Your task to perform on an android device: Open Yahoo.com Image 0: 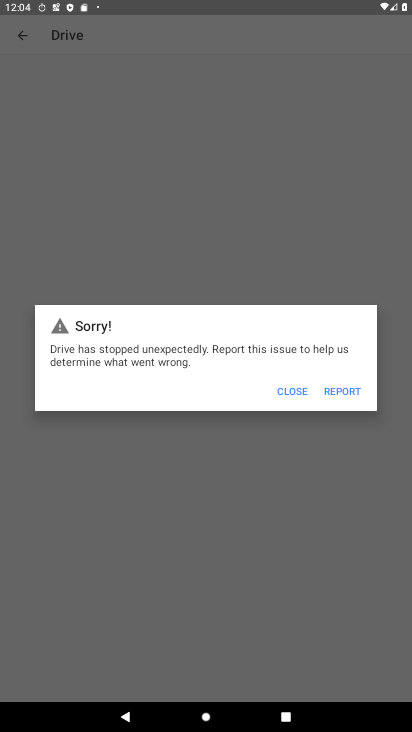
Step 0: press home button
Your task to perform on an android device: Open Yahoo.com Image 1: 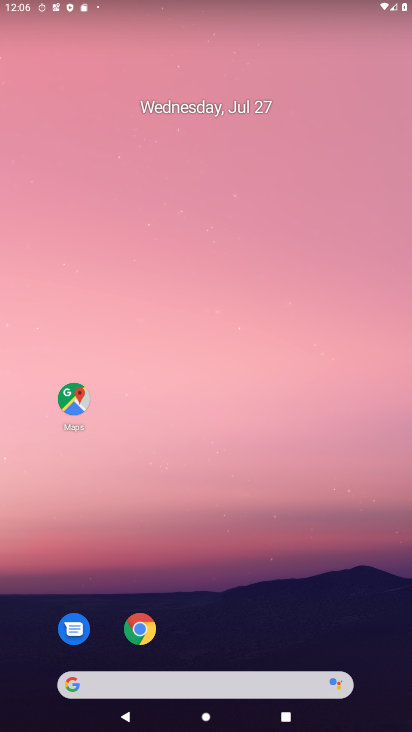
Step 1: drag from (371, 604) to (229, 26)
Your task to perform on an android device: Open Yahoo.com Image 2: 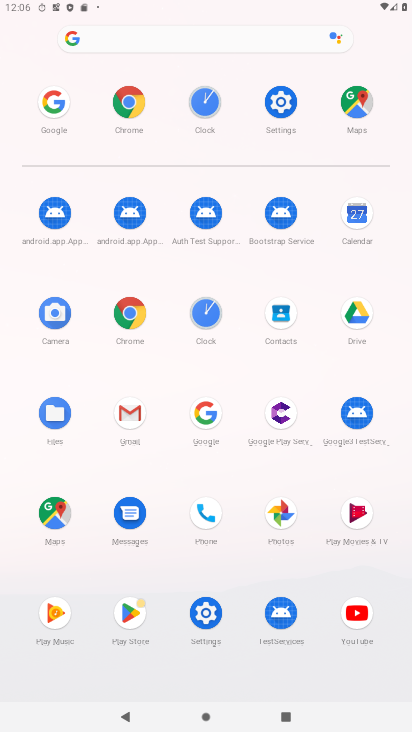
Step 2: click (200, 420)
Your task to perform on an android device: Open Yahoo.com Image 3: 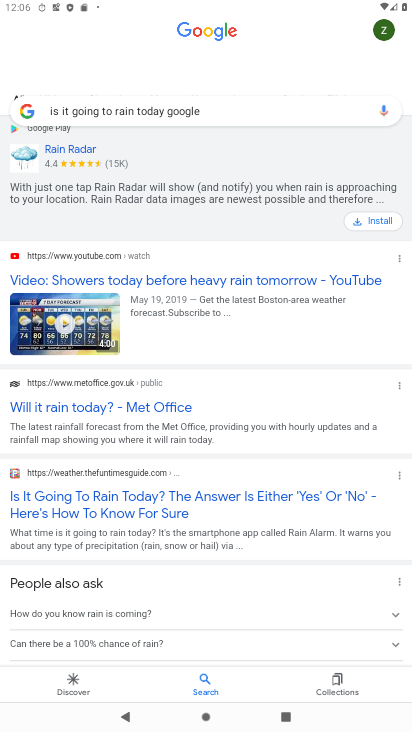
Step 3: press back button
Your task to perform on an android device: Open Yahoo.com Image 4: 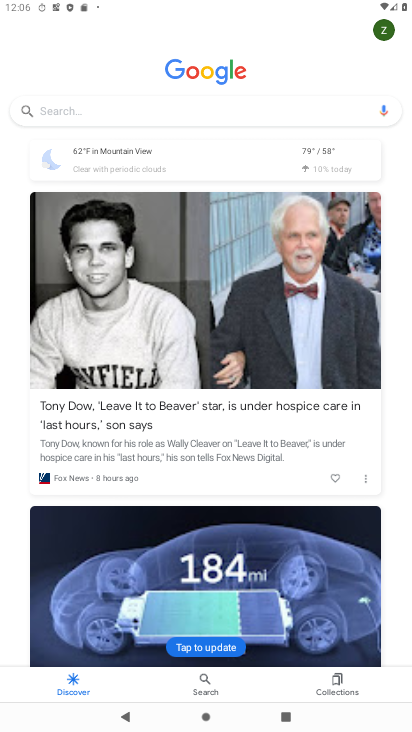
Step 4: click (111, 103)
Your task to perform on an android device: Open Yahoo.com Image 5: 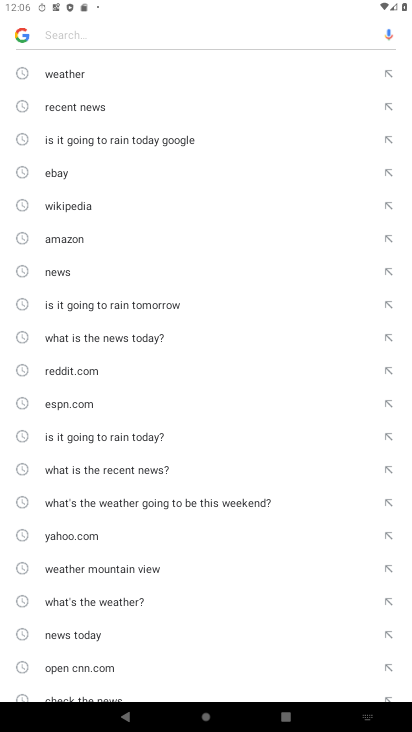
Step 5: type "Yahoo.com"
Your task to perform on an android device: Open Yahoo.com Image 6: 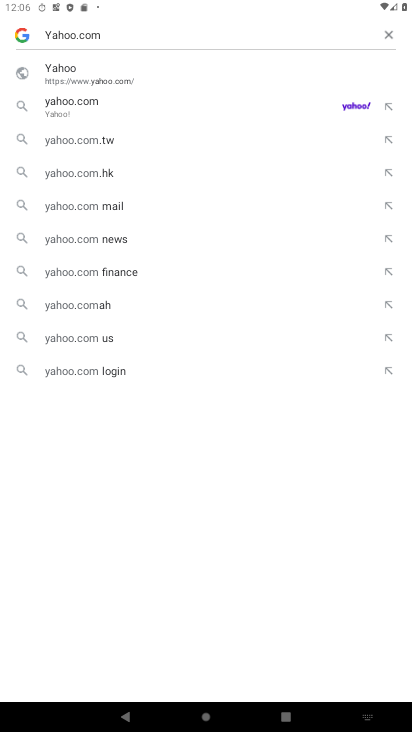
Step 6: click (94, 118)
Your task to perform on an android device: Open Yahoo.com Image 7: 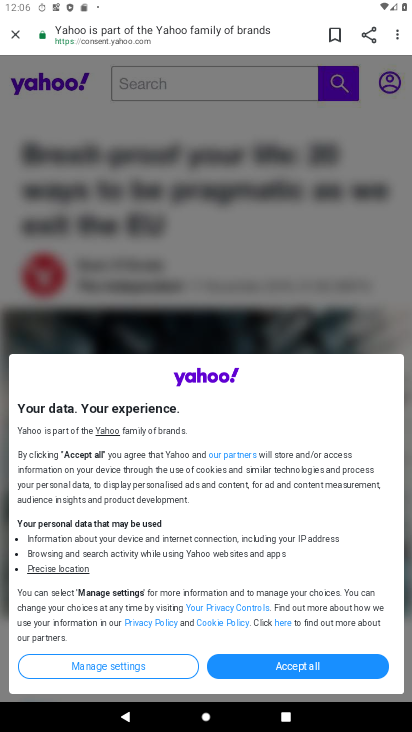
Step 7: task complete